Your task to perform on an android device: turn off priority inbox in the gmail app Image 0: 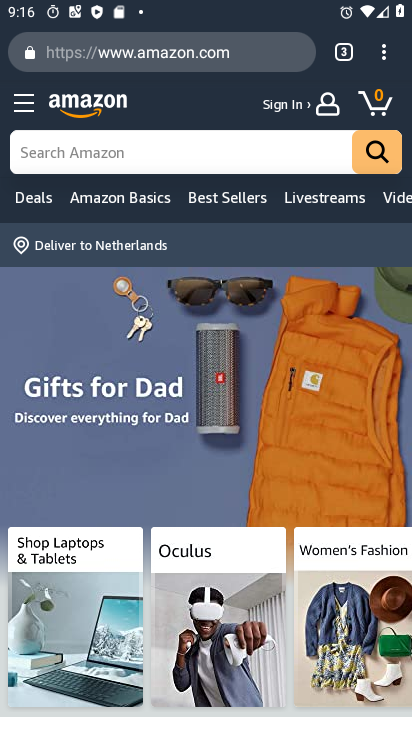
Step 0: press home button
Your task to perform on an android device: turn off priority inbox in the gmail app Image 1: 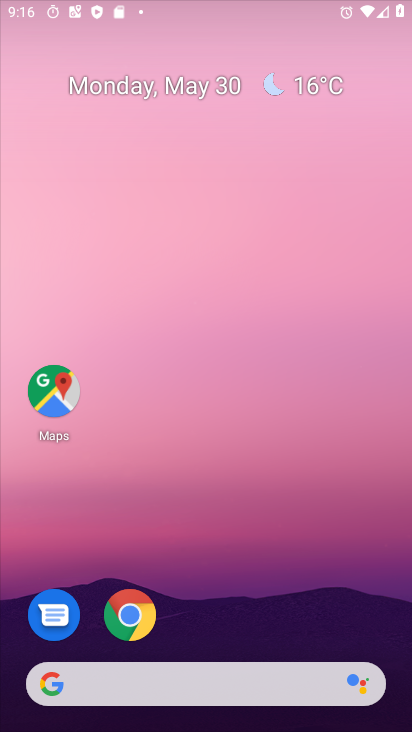
Step 1: drag from (295, 626) to (337, 27)
Your task to perform on an android device: turn off priority inbox in the gmail app Image 2: 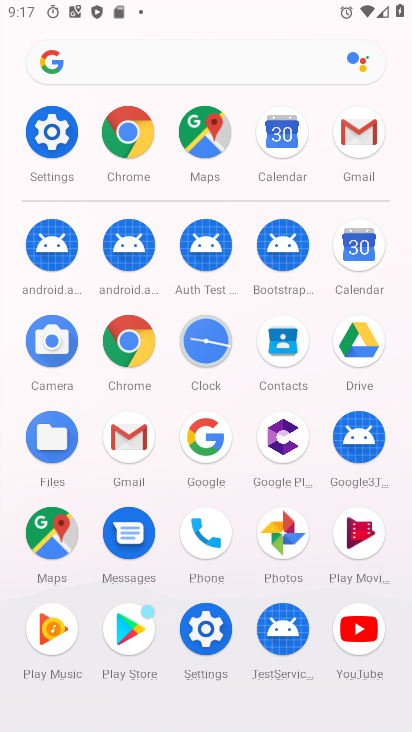
Step 2: click (358, 134)
Your task to perform on an android device: turn off priority inbox in the gmail app Image 3: 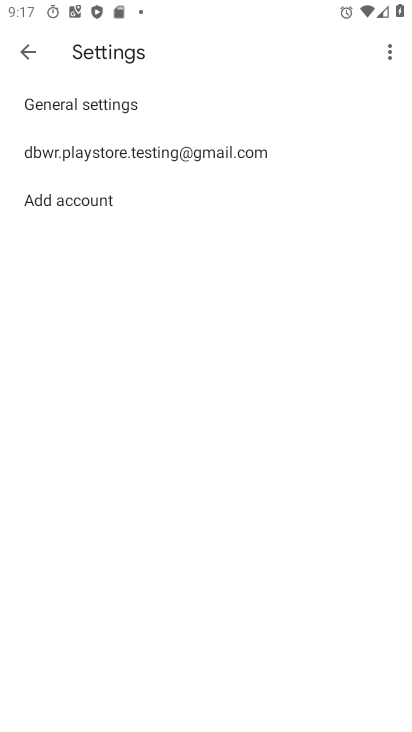
Step 3: click (38, 49)
Your task to perform on an android device: turn off priority inbox in the gmail app Image 4: 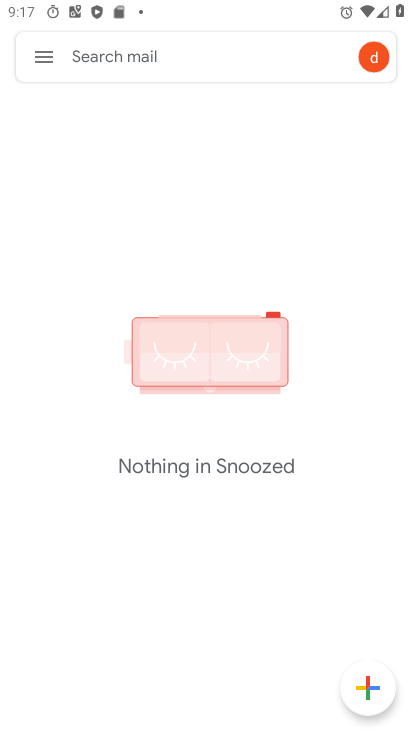
Step 4: click (38, 49)
Your task to perform on an android device: turn off priority inbox in the gmail app Image 5: 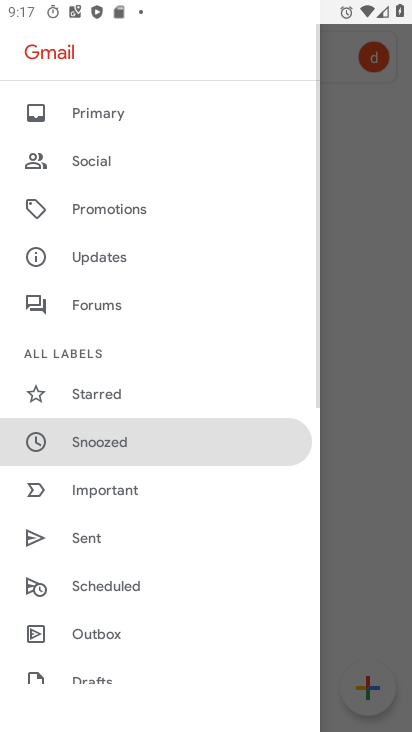
Step 5: drag from (197, 646) to (221, 161)
Your task to perform on an android device: turn off priority inbox in the gmail app Image 6: 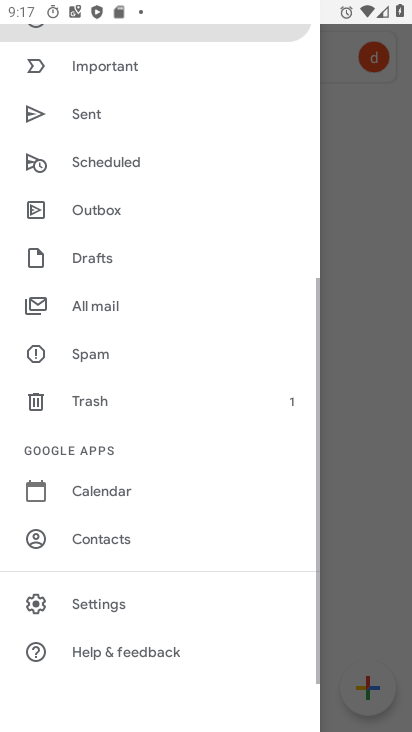
Step 6: click (88, 614)
Your task to perform on an android device: turn off priority inbox in the gmail app Image 7: 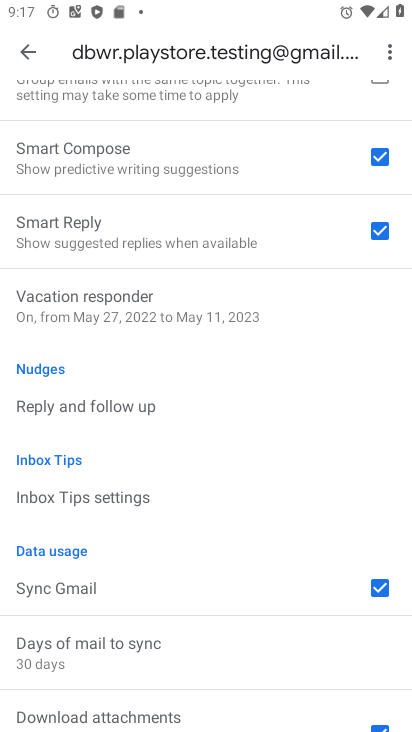
Step 7: drag from (146, 191) to (182, 534)
Your task to perform on an android device: turn off priority inbox in the gmail app Image 8: 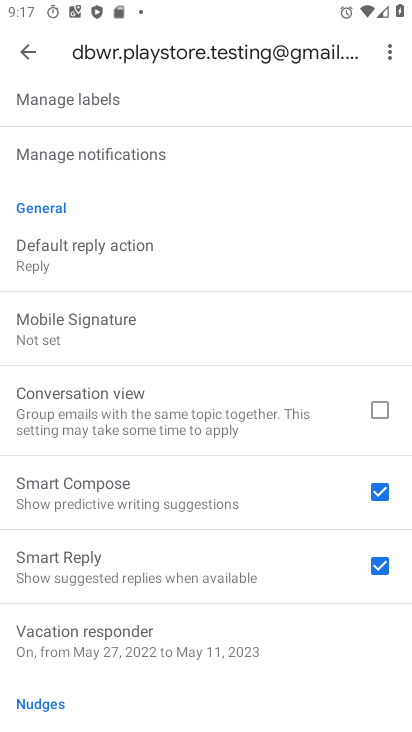
Step 8: drag from (116, 237) to (153, 587)
Your task to perform on an android device: turn off priority inbox in the gmail app Image 9: 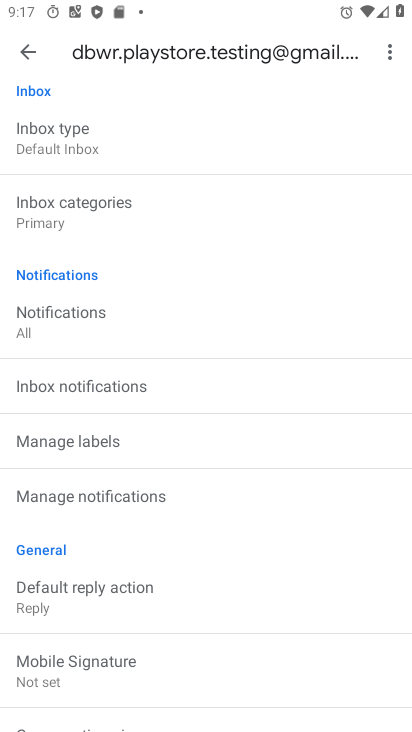
Step 9: click (46, 150)
Your task to perform on an android device: turn off priority inbox in the gmail app Image 10: 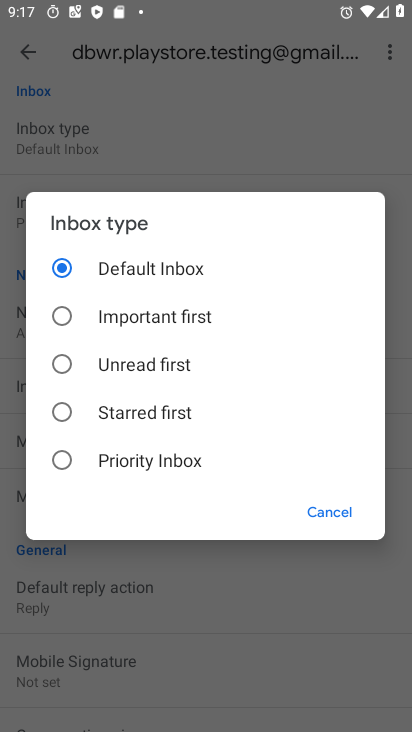
Step 10: task complete